Your task to perform on an android device: turn on the 24-hour format for clock Image 0: 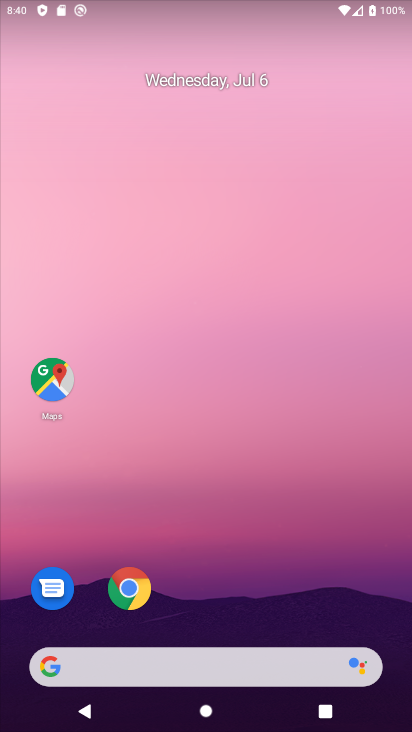
Step 0: drag from (248, 561) to (178, 0)
Your task to perform on an android device: turn on the 24-hour format for clock Image 1: 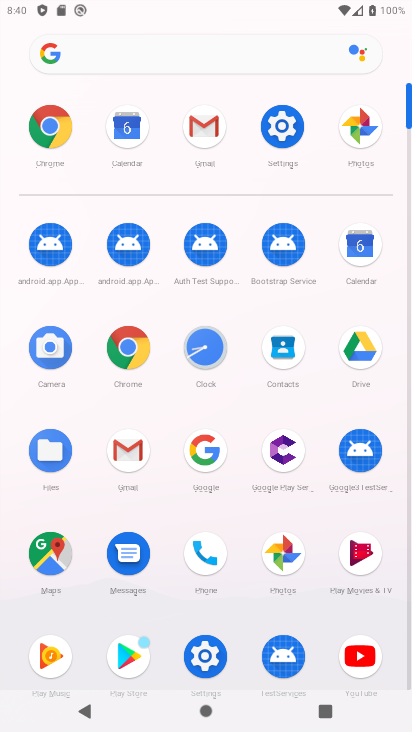
Step 1: click (210, 346)
Your task to perform on an android device: turn on the 24-hour format for clock Image 2: 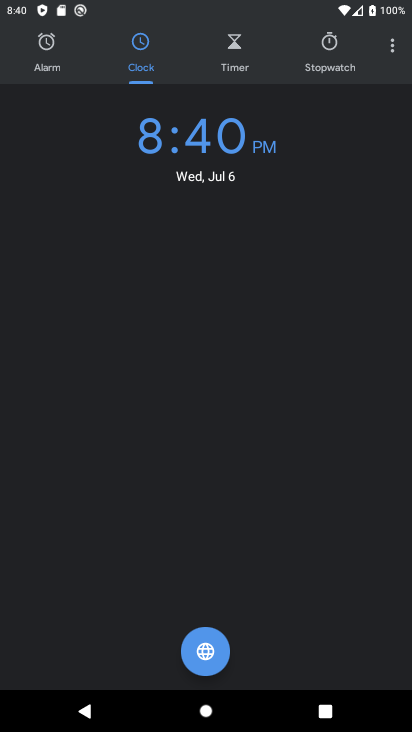
Step 2: click (394, 42)
Your task to perform on an android device: turn on the 24-hour format for clock Image 3: 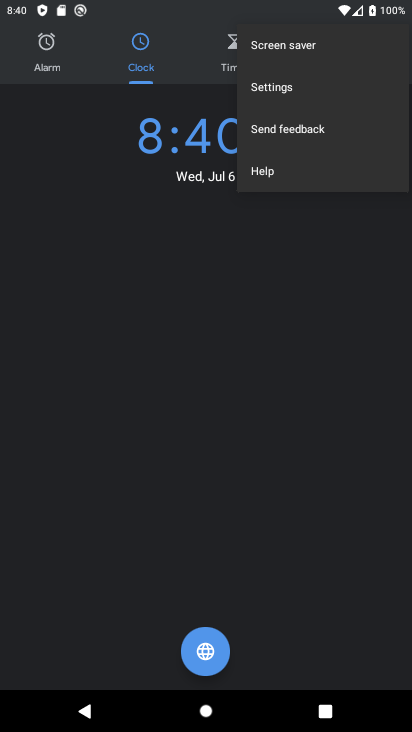
Step 3: click (273, 87)
Your task to perform on an android device: turn on the 24-hour format for clock Image 4: 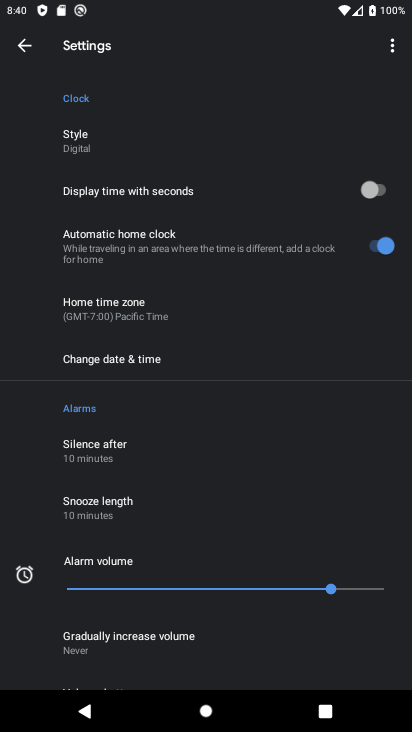
Step 4: click (130, 356)
Your task to perform on an android device: turn on the 24-hour format for clock Image 5: 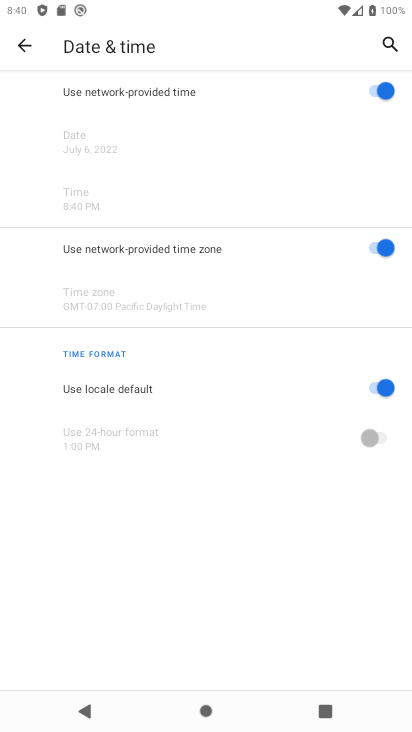
Step 5: click (380, 390)
Your task to perform on an android device: turn on the 24-hour format for clock Image 6: 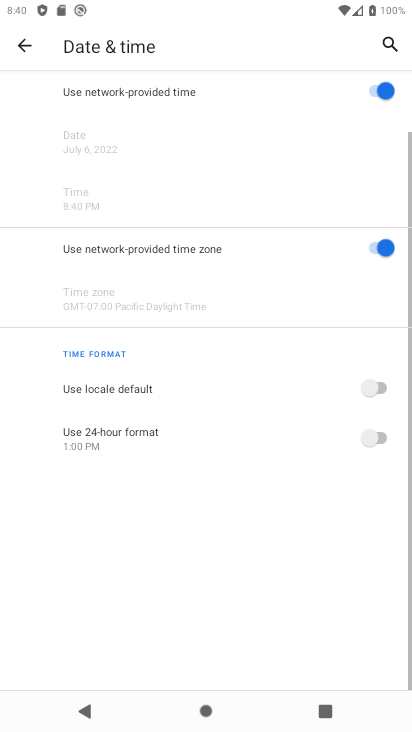
Step 6: click (370, 436)
Your task to perform on an android device: turn on the 24-hour format for clock Image 7: 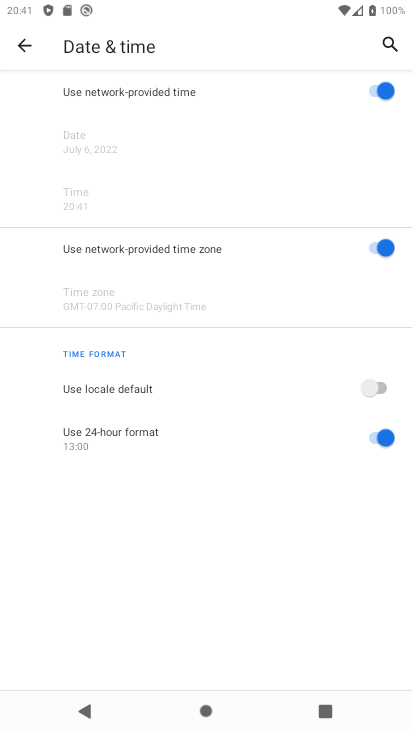
Step 7: task complete